Your task to perform on an android device: clear all cookies in the chrome app Image 0: 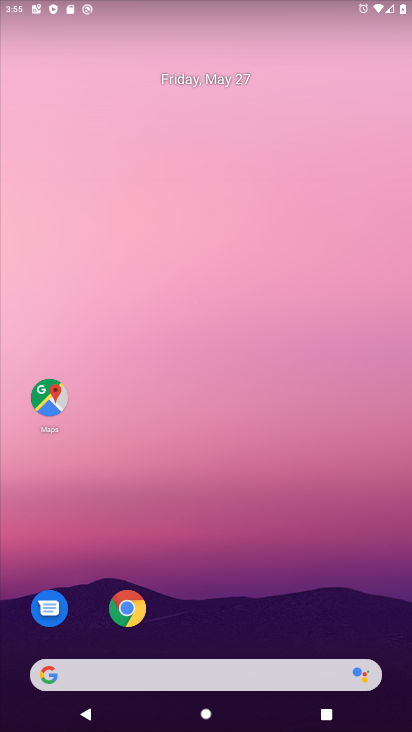
Step 0: click (123, 613)
Your task to perform on an android device: clear all cookies in the chrome app Image 1: 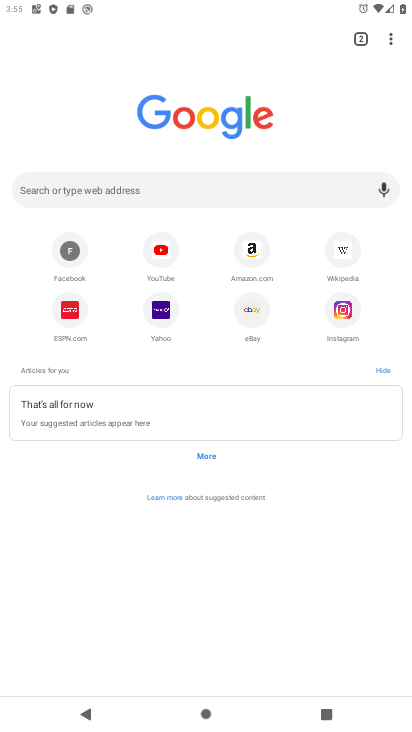
Step 1: click (394, 38)
Your task to perform on an android device: clear all cookies in the chrome app Image 2: 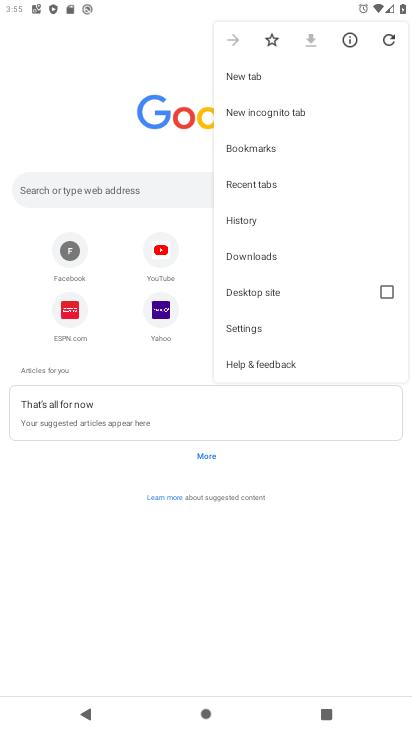
Step 2: click (256, 224)
Your task to perform on an android device: clear all cookies in the chrome app Image 3: 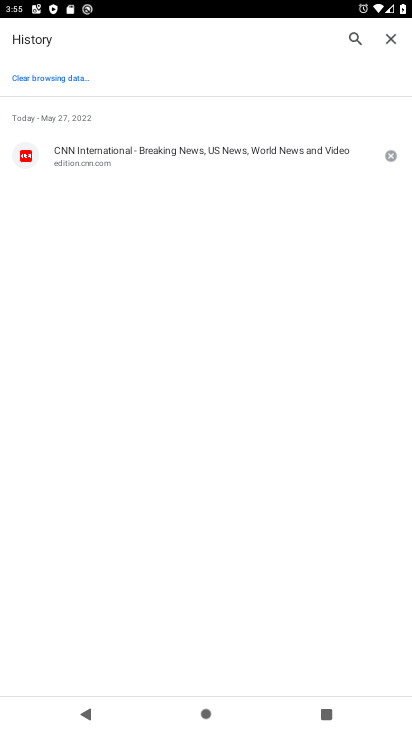
Step 3: click (64, 80)
Your task to perform on an android device: clear all cookies in the chrome app Image 4: 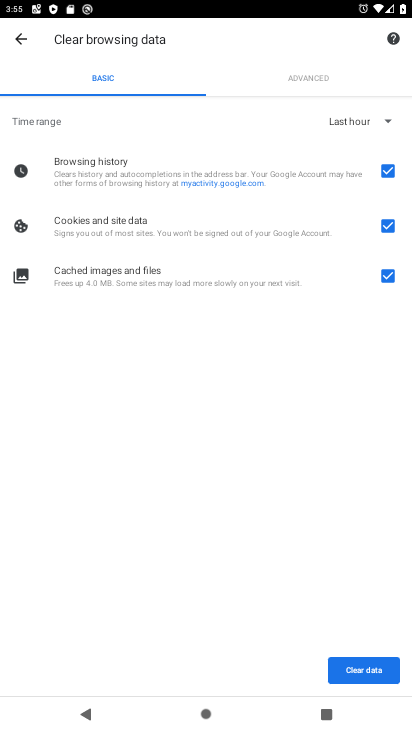
Step 4: click (386, 170)
Your task to perform on an android device: clear all cookies in the chrome app Image 5: 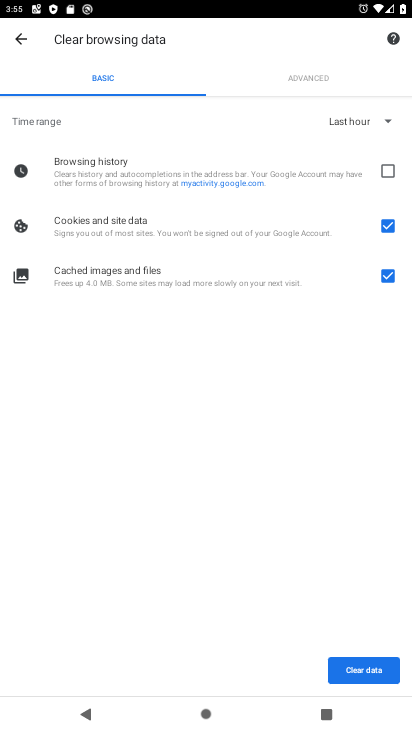
Step 5: click (392, 276)
Your task to perform on an android device: clear all cookies in the chrome app Image 6: 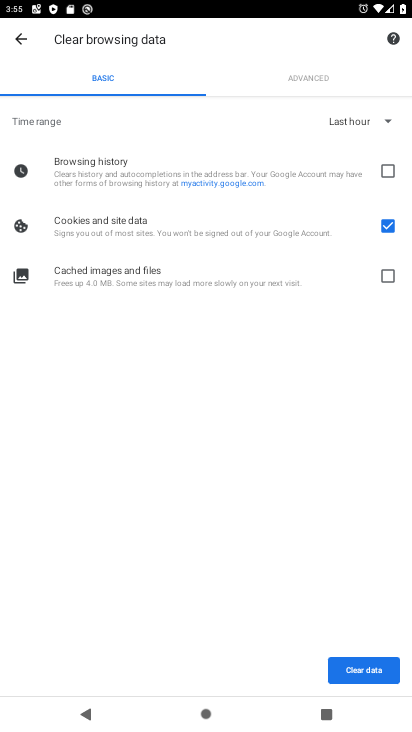
Step 6: click (353, 672)
Your task to perform on an android device: clear all cookies in the chrome app Image 7: 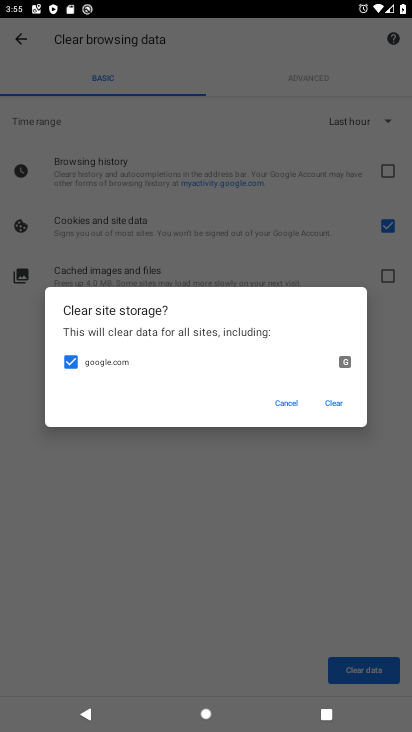
Step 7: click (340, 399)
Your task to perform on an android device: clear all cookies in the chrome app Image 8: 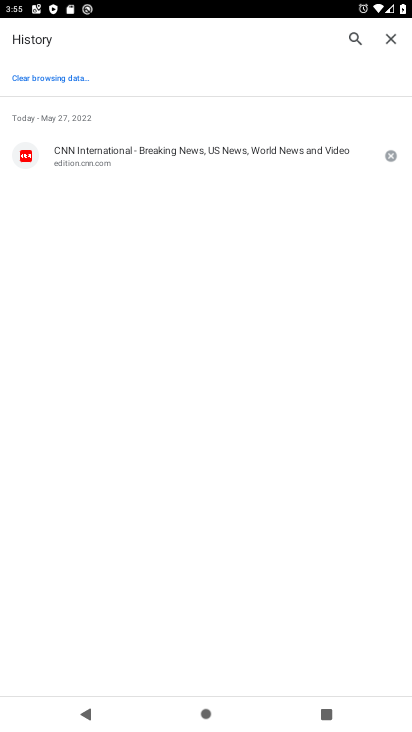
Step 8: task complete